Your task to perform on an android device: turn off airplane mode Image 0: 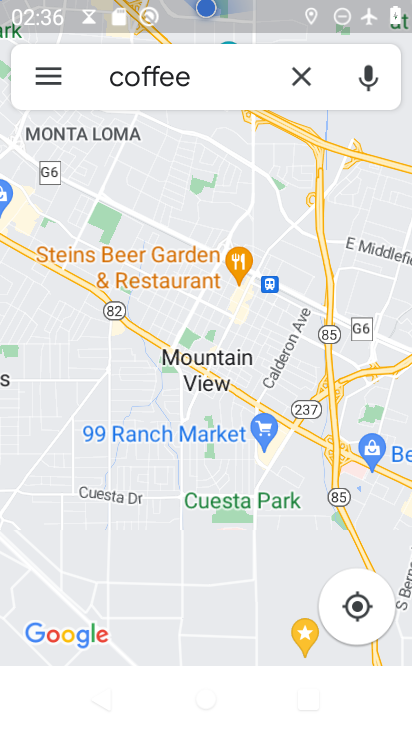
Step 0: press home button
Your task to perform on an android device: turn off airplane mode Image 1: 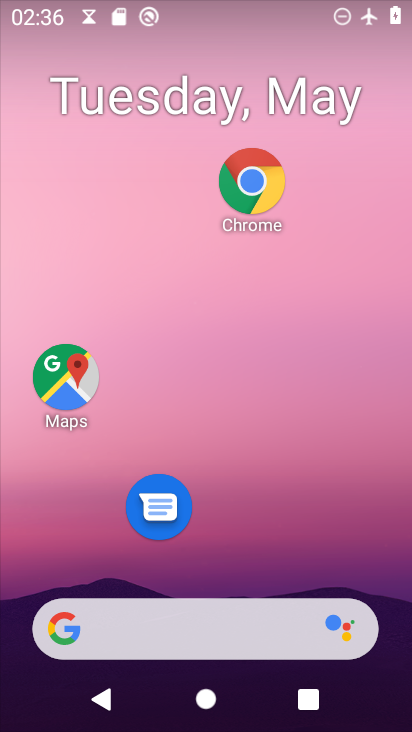
Step 1: click (327, 555)
Your task to perform on an android device: turn off airplane mode Image 2: 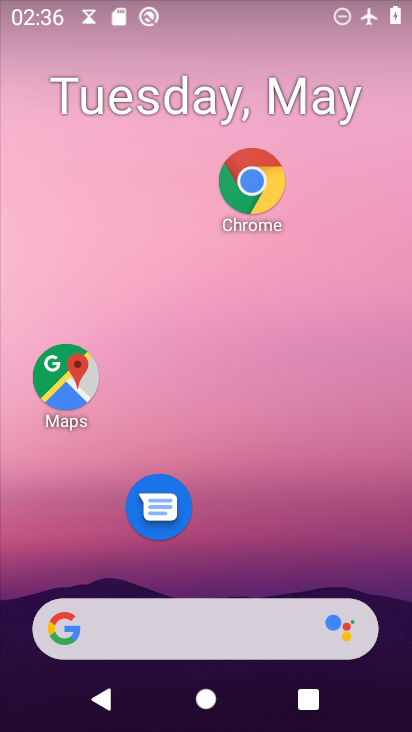
Step 2: drag from (319, 568) to (263, 154)
Your task to perform on an android device: turn off airplane mode Image 3: 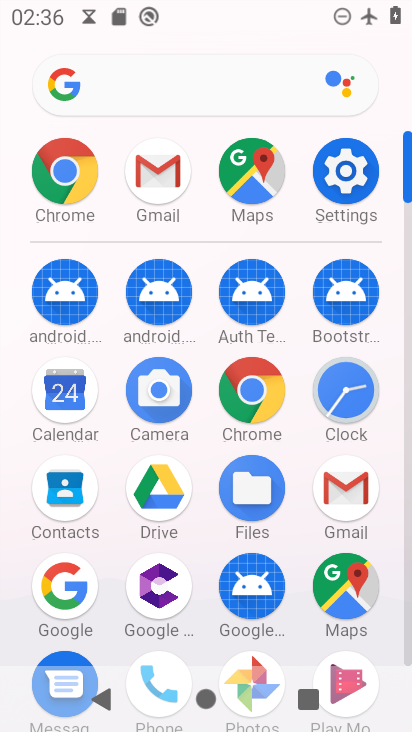
Step 3: click (343, 151)
Your task to perform on an android device: turn off airplane mode Image 4: 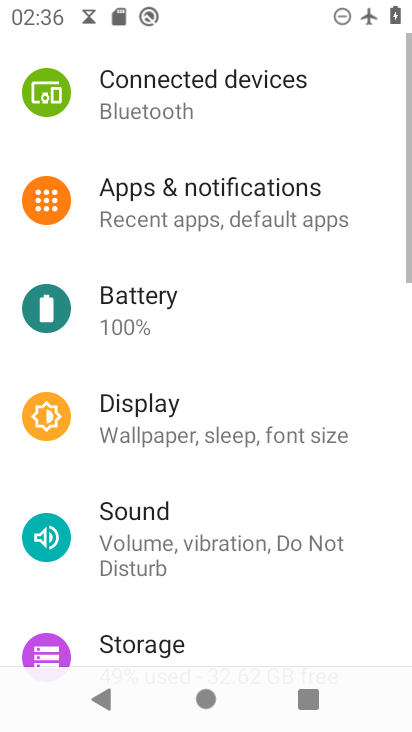
Step 4: drag from (244, 155) to (281, 561)
Your task to perform on an android device: turn off airplane mode Image 5: 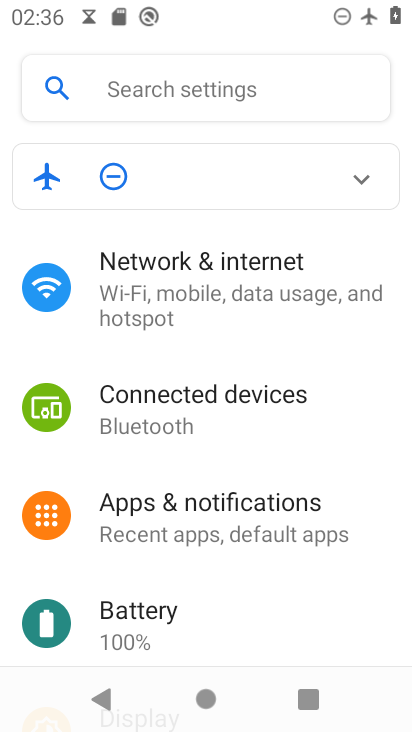
Step 5: click (218, 299)
Your task to perform on an android device: turn off airplane mode Image 6: 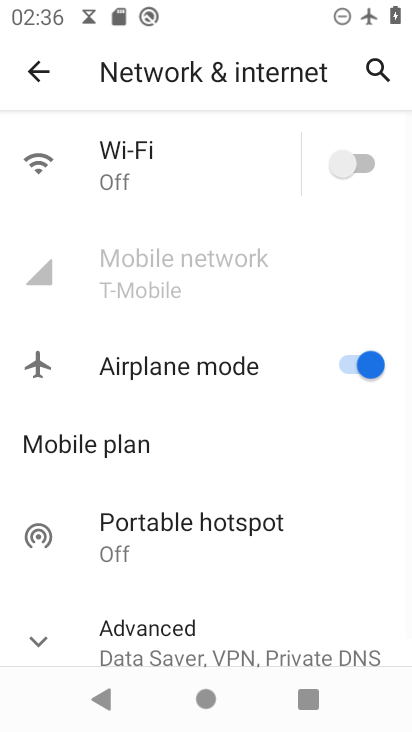
Step 6: click (352, 356)
Your task to perform on an android device: turn off airplane mode Image 7: 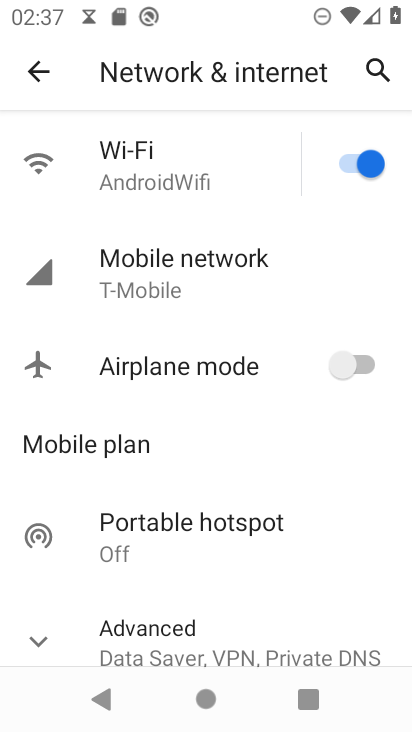
Step 7: task complete